Your task to perform on an android device: open app "Google Photos" Image 0: 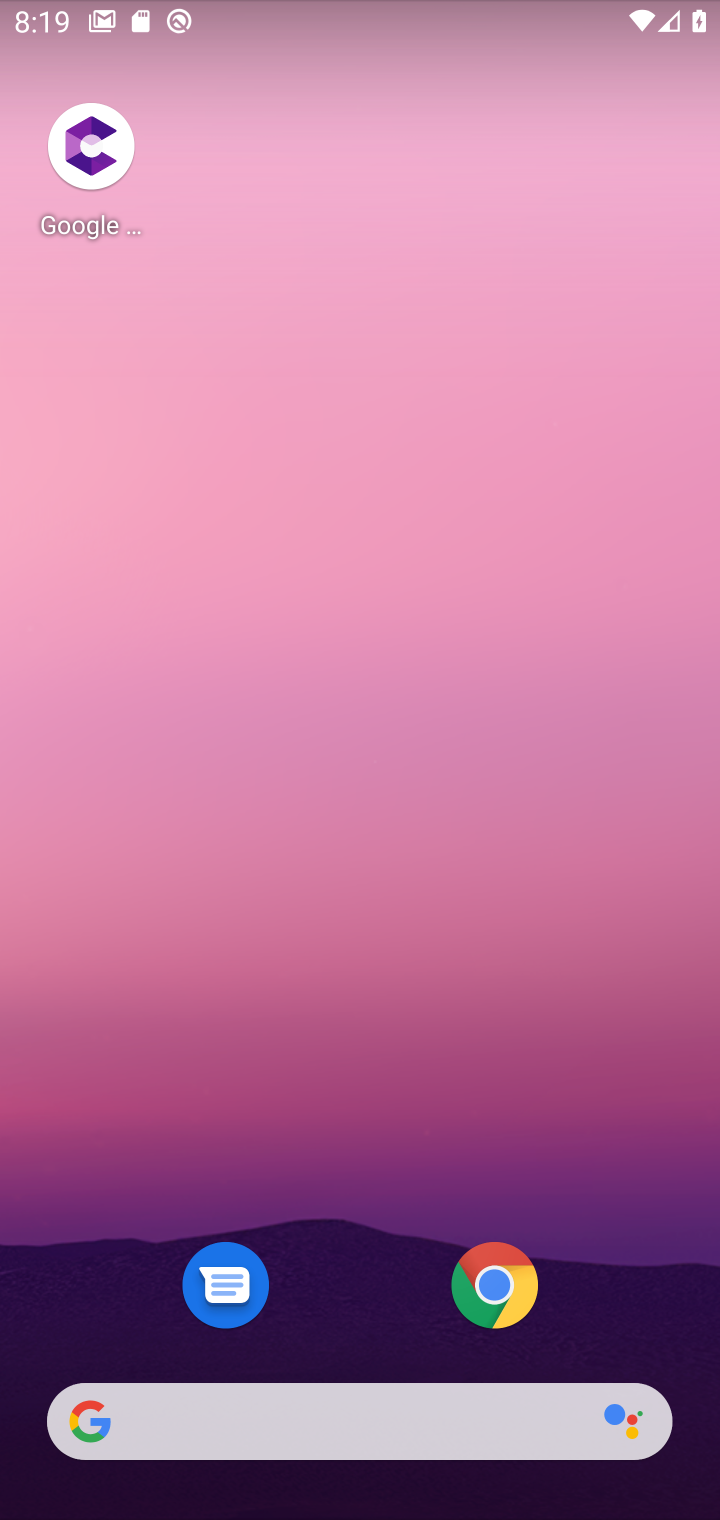
Step 0: drag from (632, 1305) to (574, 148)
Your task to perform on an android device: open app "Google Photos" Image 1: 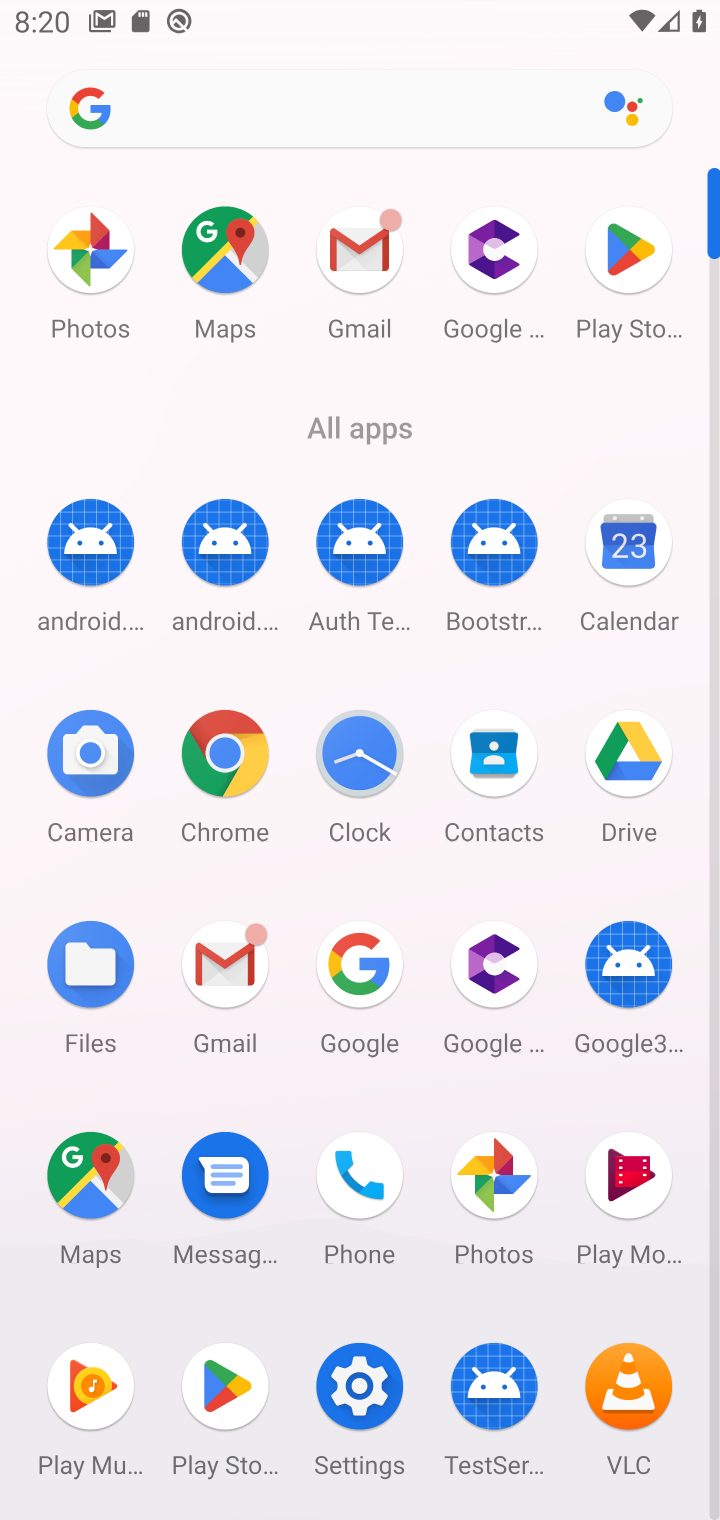
Step 1: click (227, 1391)
Your task to perform on an android device: open app "Google Photos" Image 2: 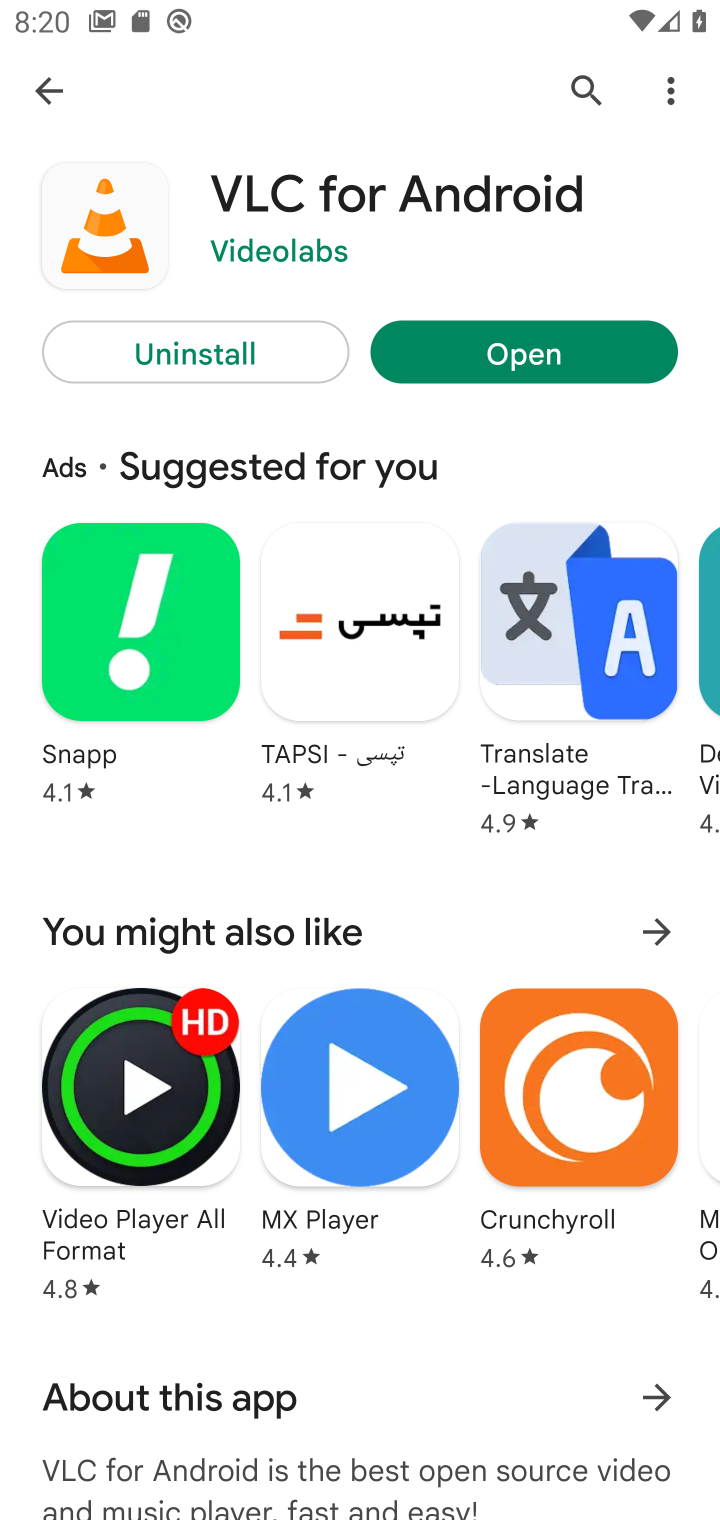
Step 2: click (587, 78)
Your task to perform on an android device: open app "Google Photos" Image 3: 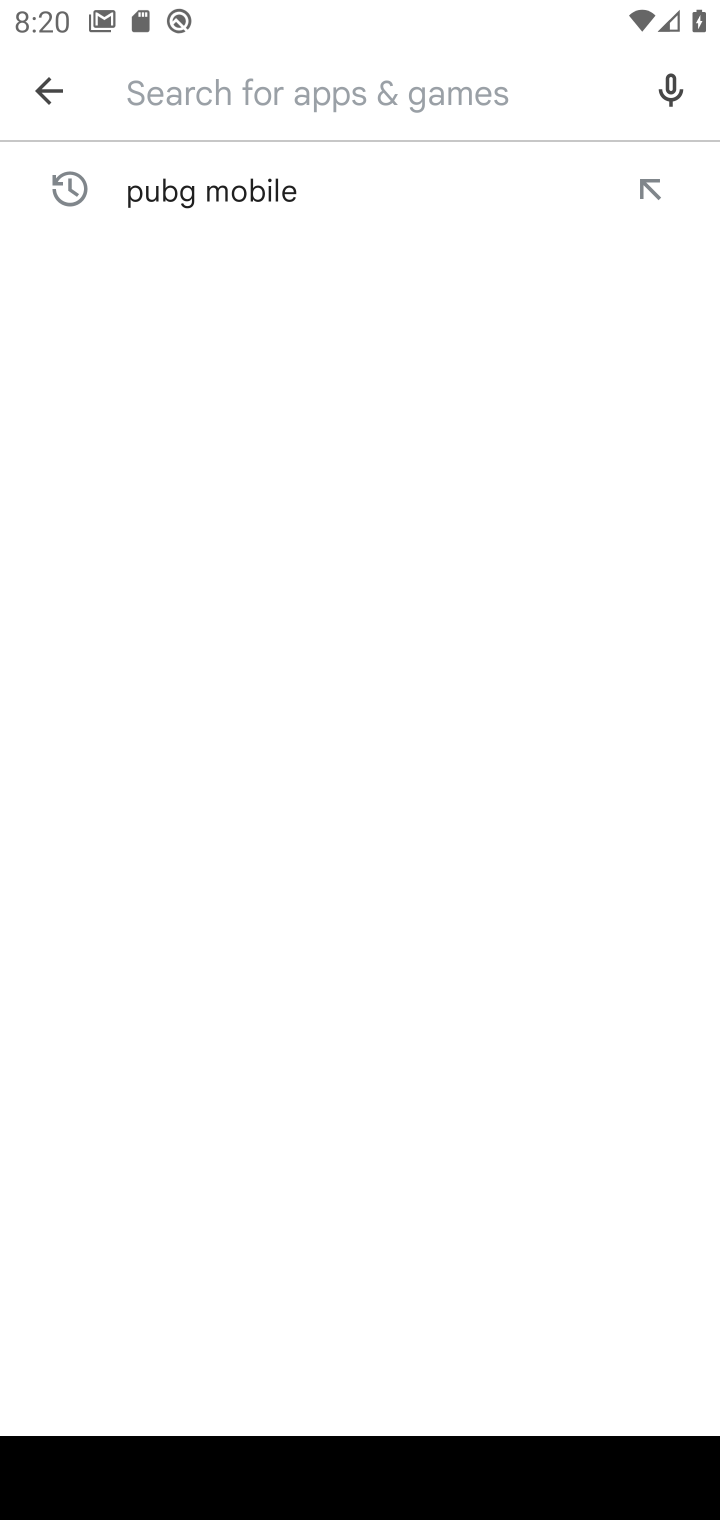
Step 3: type "Google Photos"
Your task to perform on an android device: open app "Google Photos" Image 4: 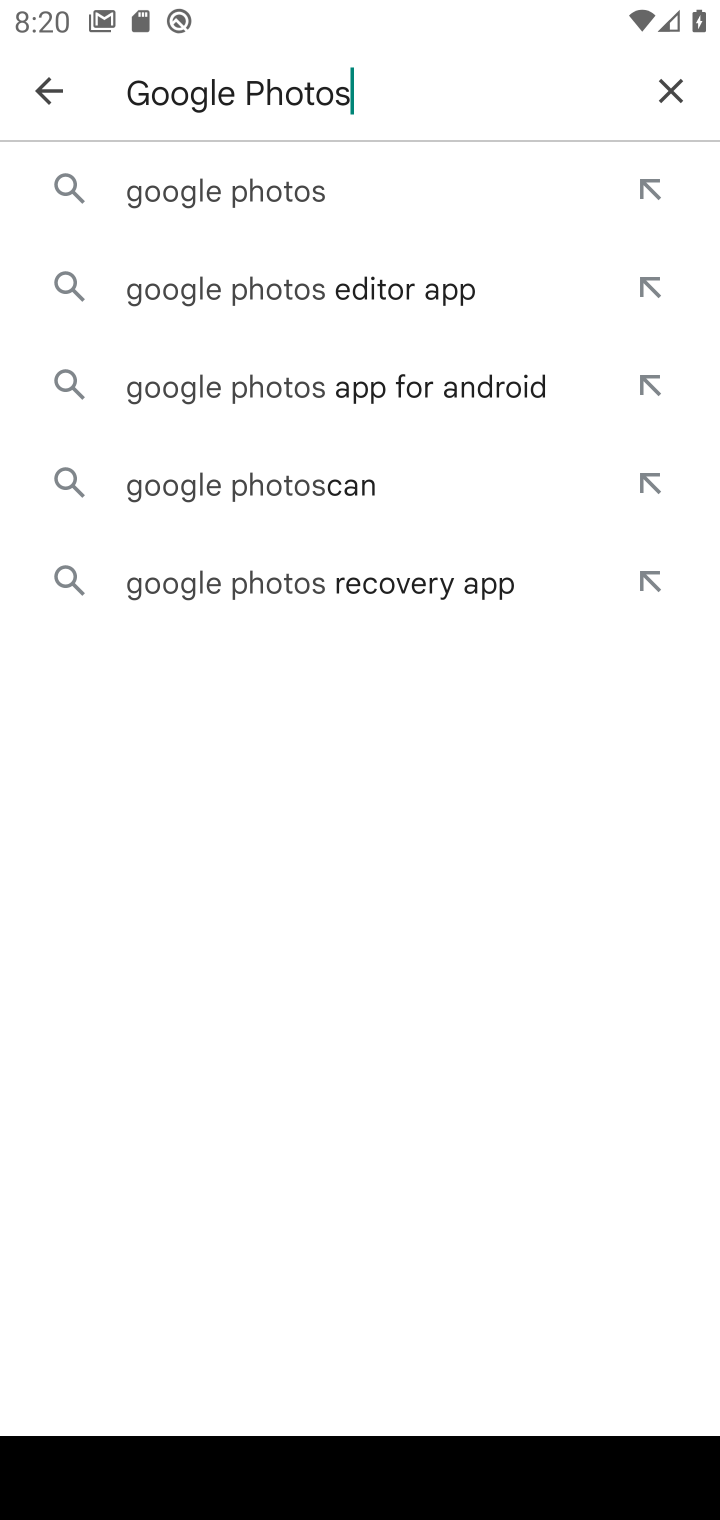
Step 4: click (188, 178)
Your task to perform on an android device: open app "Google Photos" Image 5: 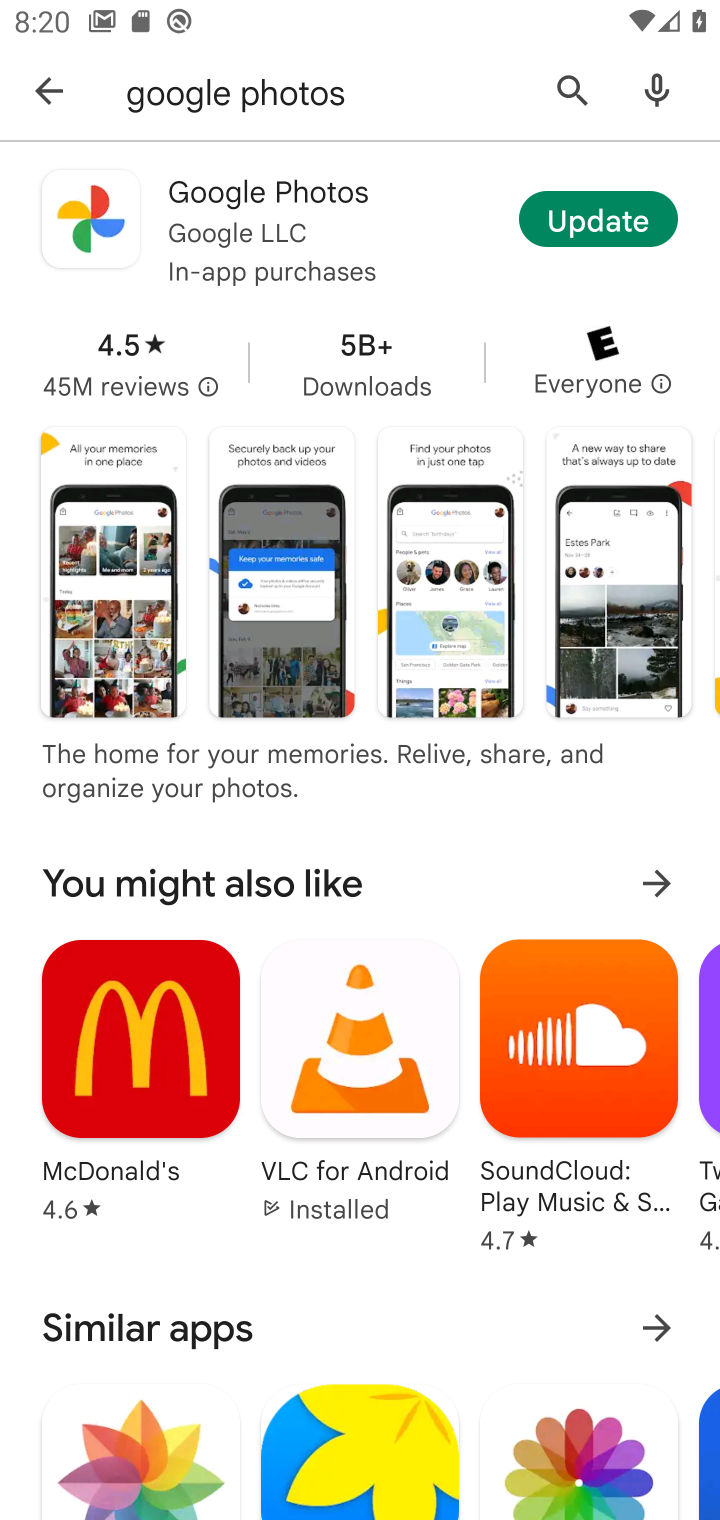
Step 5: click (597, 223)
Your task to perform on an android device: open app "Google Photos" Image 6: 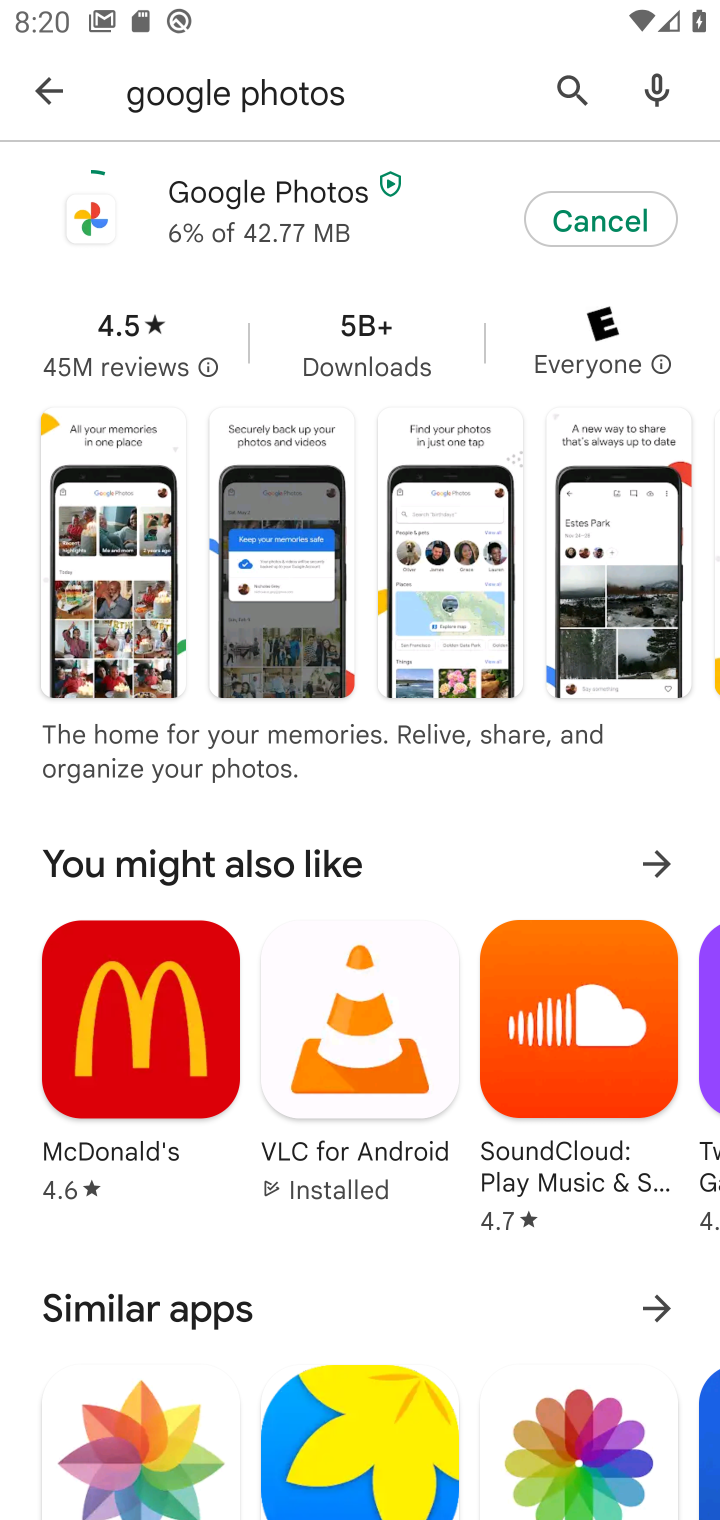
Step 6: click (215, 210)
Your task to perform on an android device: open app "Google Photos" Image 7: 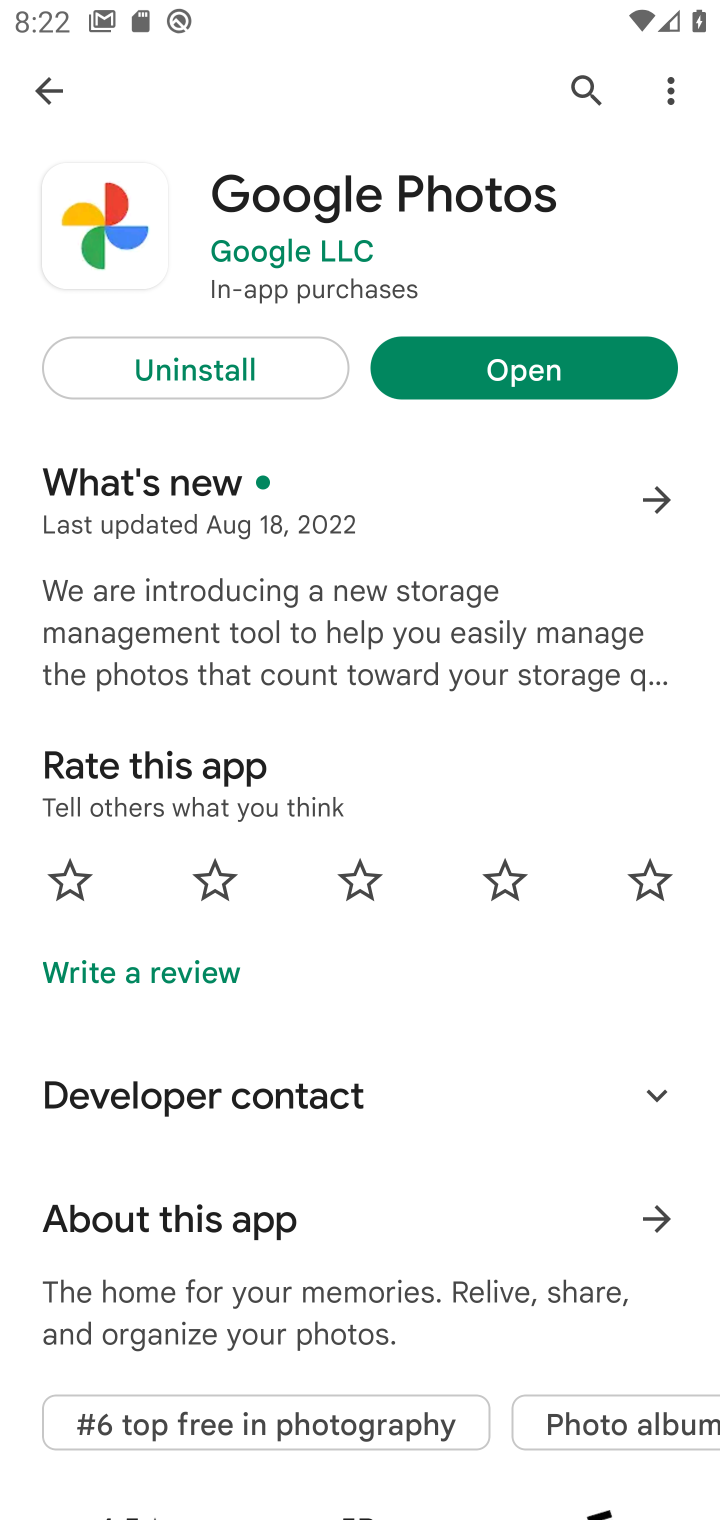
Step 7: click (521, 361)
Your task to perform on an android device: open app "Google Photos" Image 8: 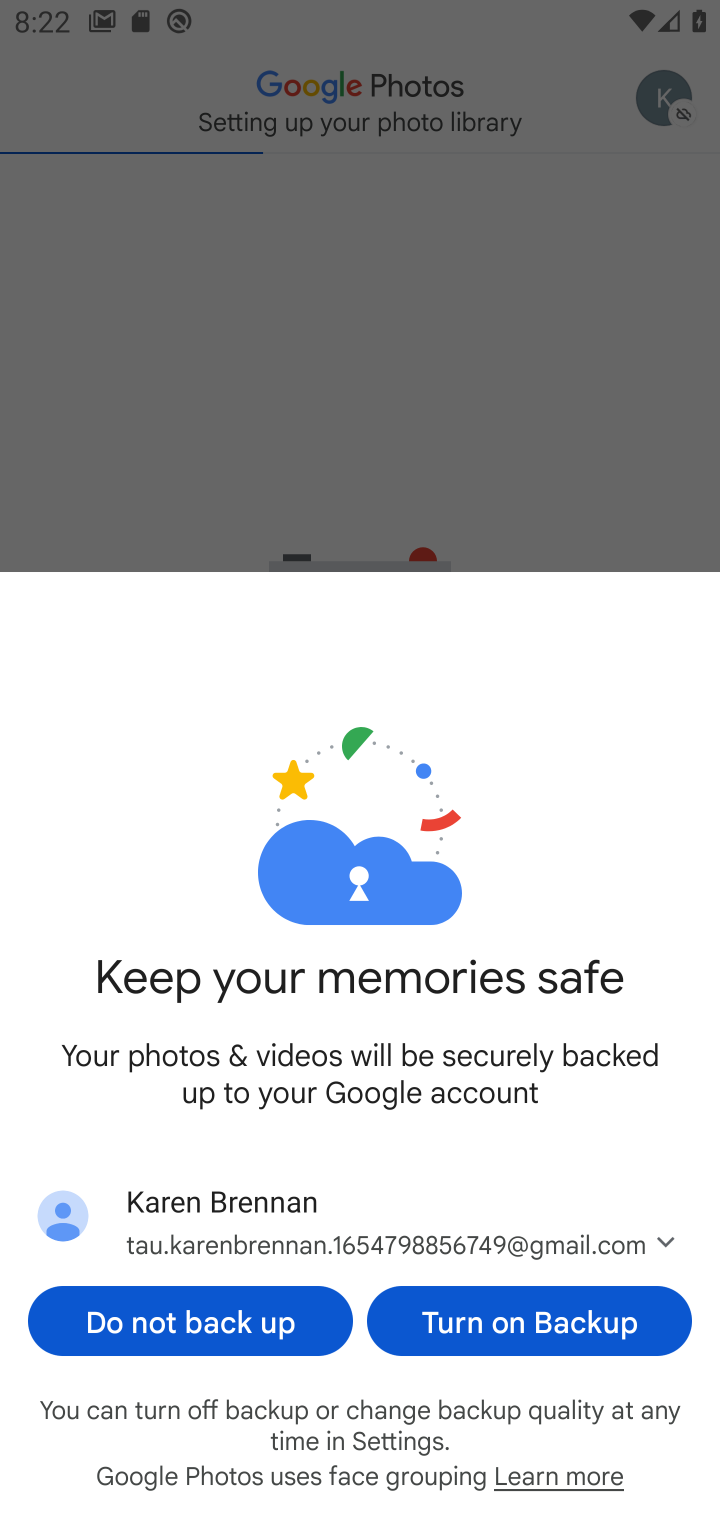
Step 8: task complete